Your task to perform on an android device: Open battery settings Image 0: 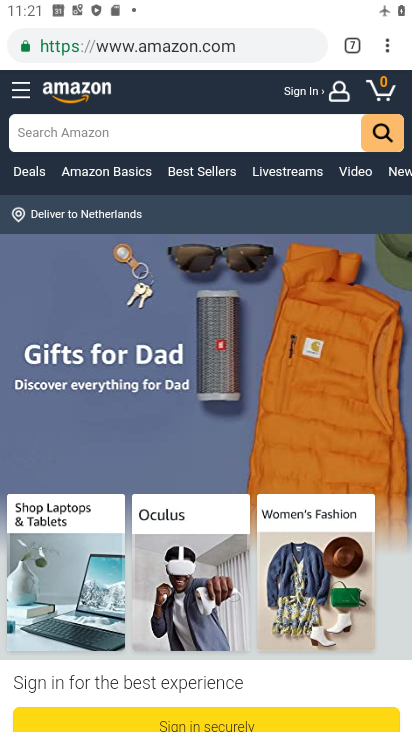
Step 0: press home button
Your task to perform on an android device: Open battery settings Image 1: 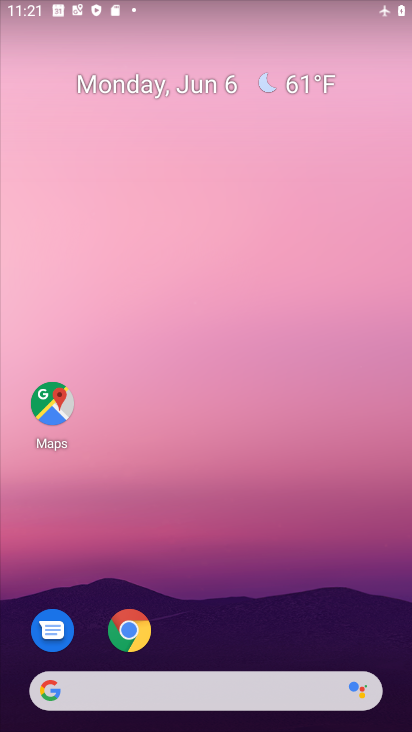
Step 1: drag from (325, 574) to (337, 81)
Your task to perform on an android device: Open battery settings Image 2: 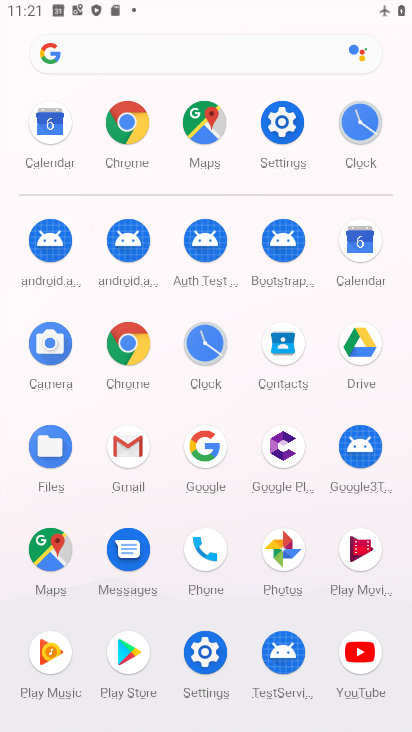
Step 2: click (202, 663)
Your task to perform on an android device: Open battery settings Image 3: 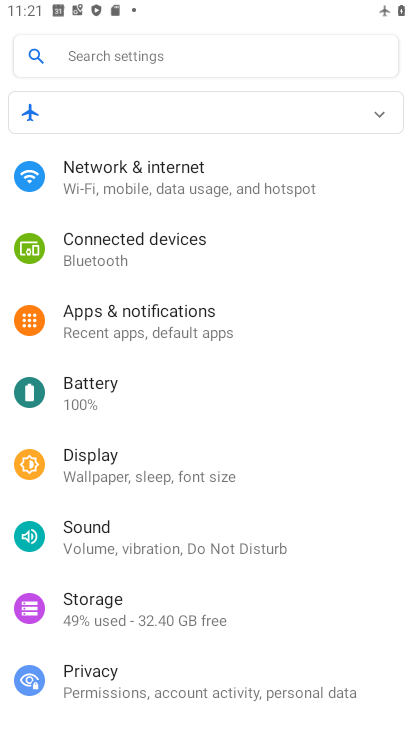
Step 3: click (120, 385)
Your task to perform on an android device: Open battery settings Image 4: 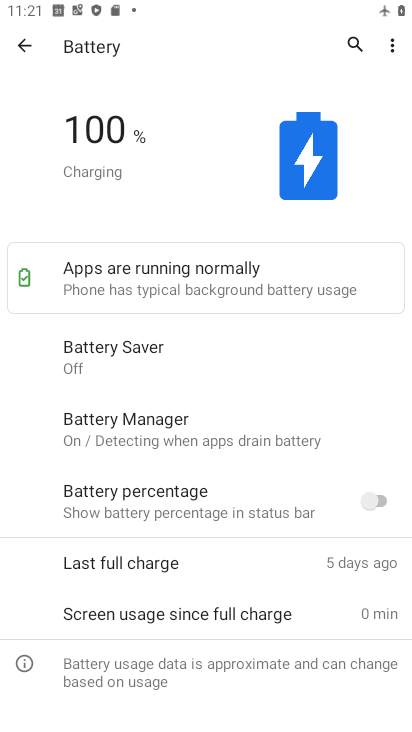
Step 4: click (379, 45)
Your task to perform on an android device: Open battery settings Image 5: 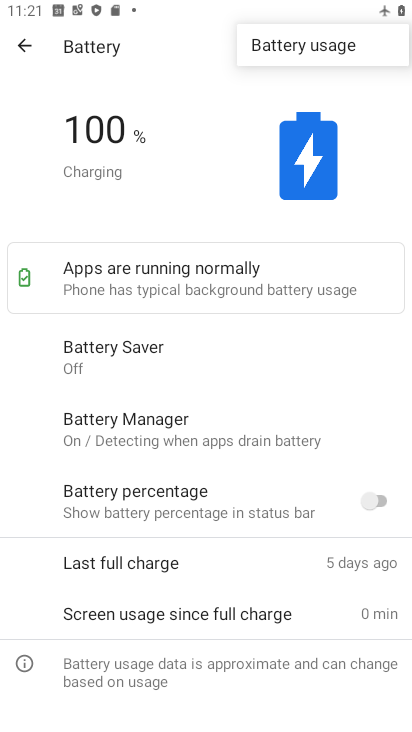
Step 5: click (297, 40)
Your task to perform on an android device: Open battery settings Image 6: 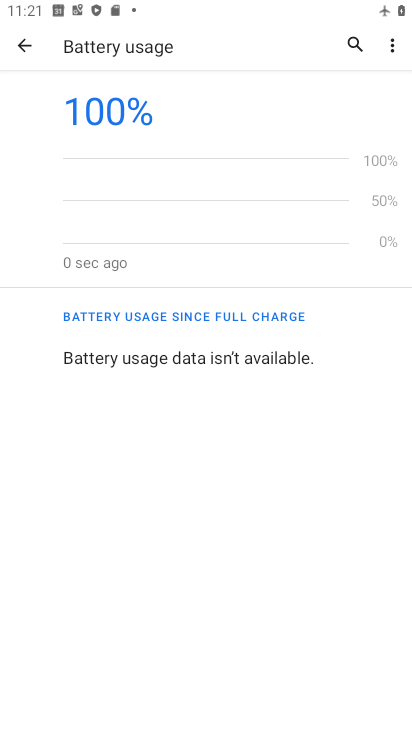
Step 6: task complete